Your task to perform on an android device: toggle translation in the chrome app Image 0: 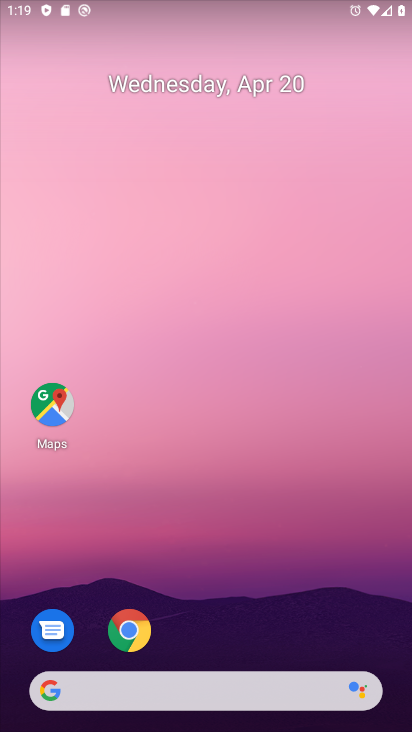
Step 0: press home button
Your task to perform on an android device: toggle translation in the chrome app Image 1: 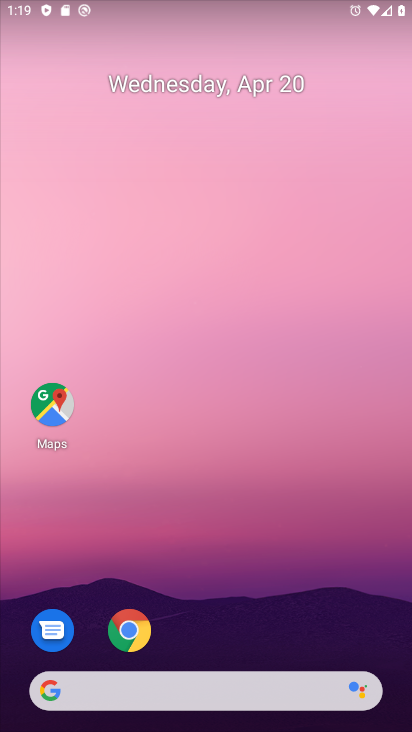
Step 1: click (135, 631)
Your task to perform on an android device: toggle translation in the chrome app Image 2: 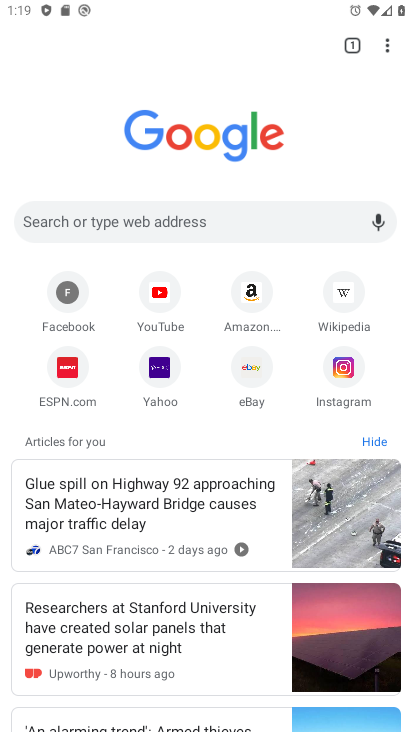
Step 2: drag from (386, 44) to (243, 380)
Your task to perform on an android device: toggle translation in the chrome app Image 3: 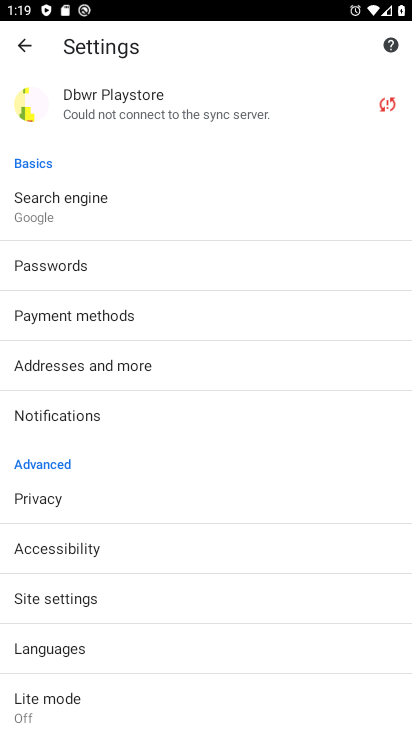
Step 3: click (45, 645)
Your task to perform on an android device: toggle translation in the chrome app Image 4: 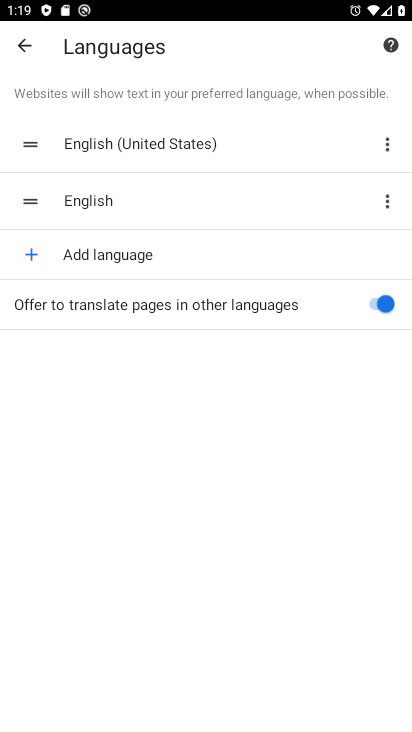
Step 4: click (391, 307)
Your task to perform on an android device: toggle translation in the chrome app Image 5: 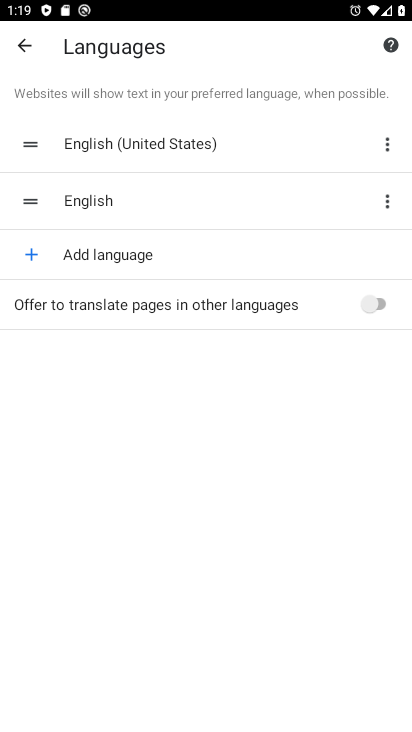
Step 5: task complete